Your task to perform on an android device: Search for sushi restaurants on Maps Image 0: 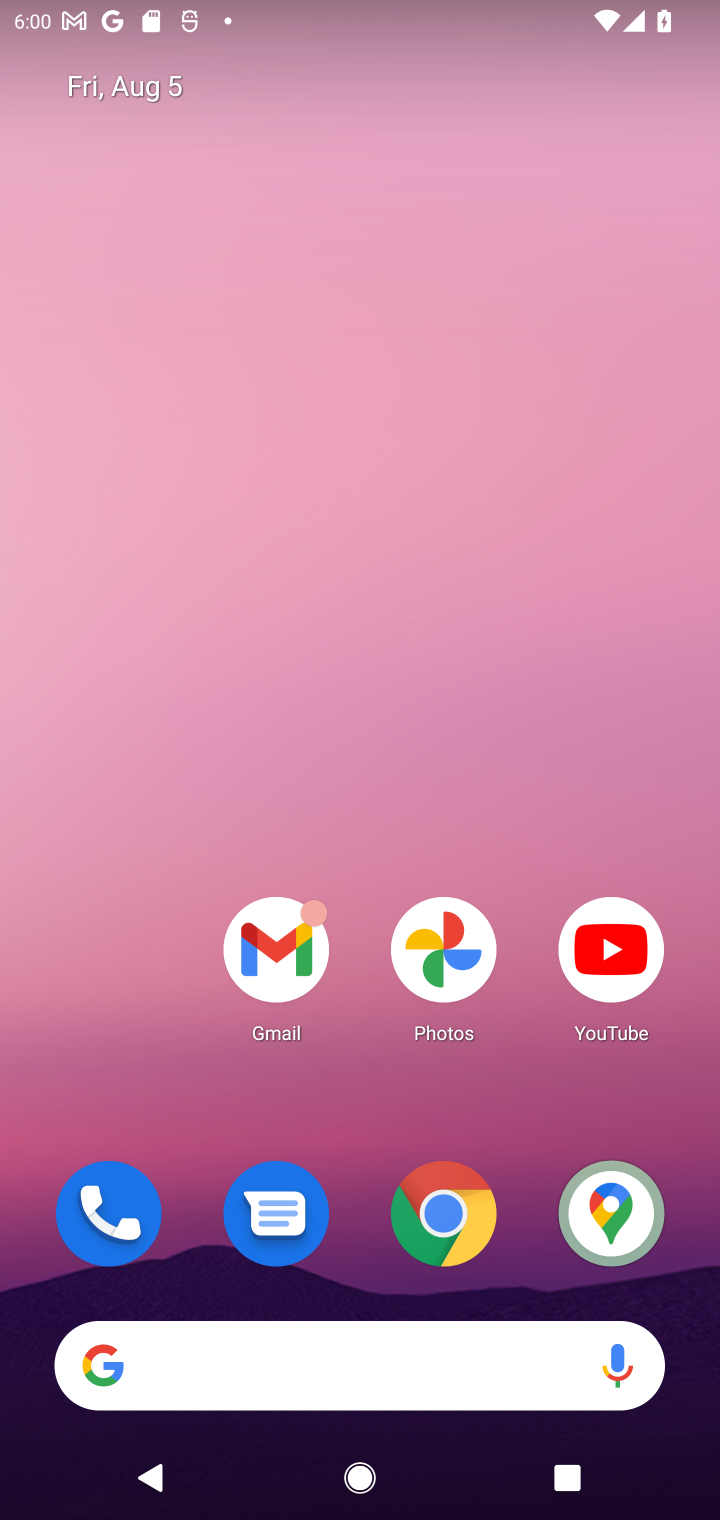
Step 0: click (614, 1213)
Your task to perform on an android device: Search for sushi restaurants on Maps Image 1: 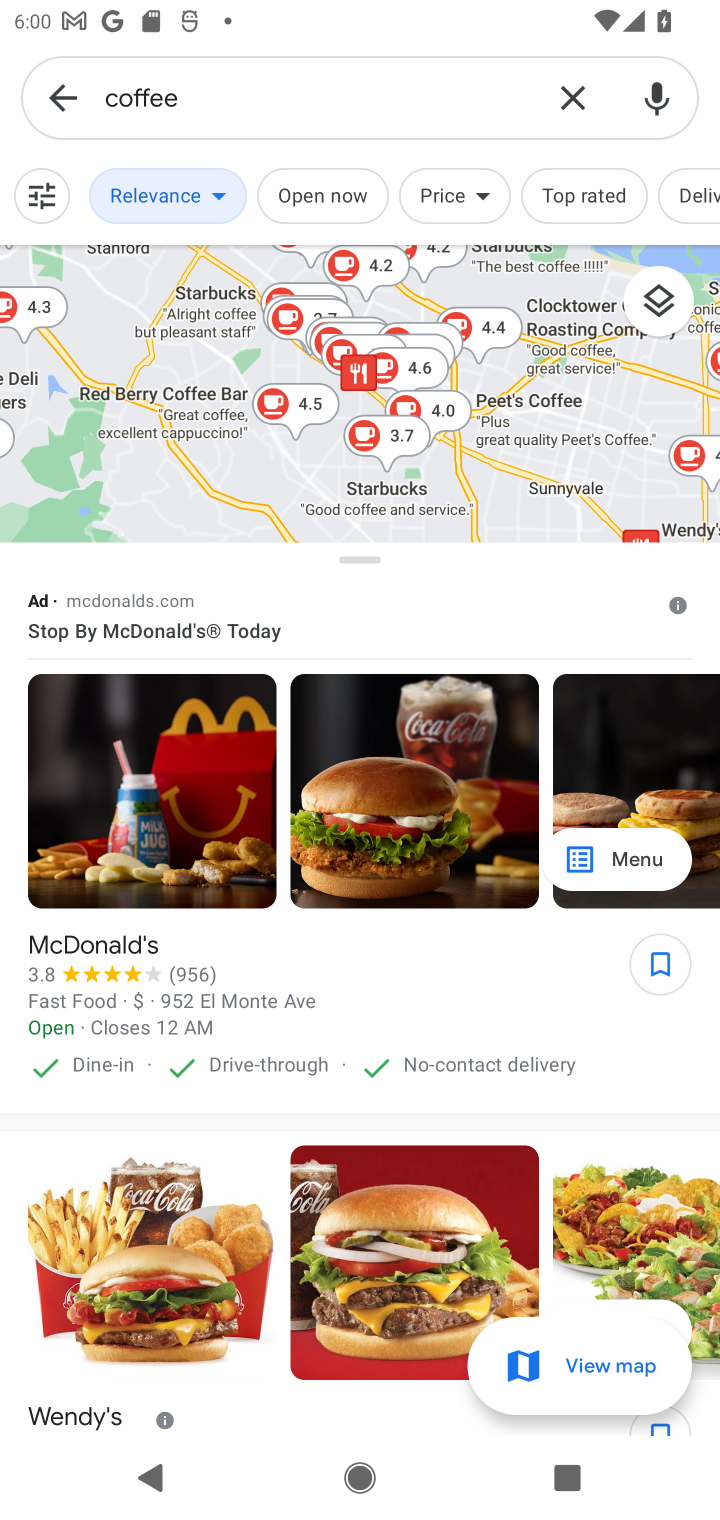
Step 1: click (549, 110)
Your task to perform on an android device: Search for sushi restaurants on Maps Image 2: 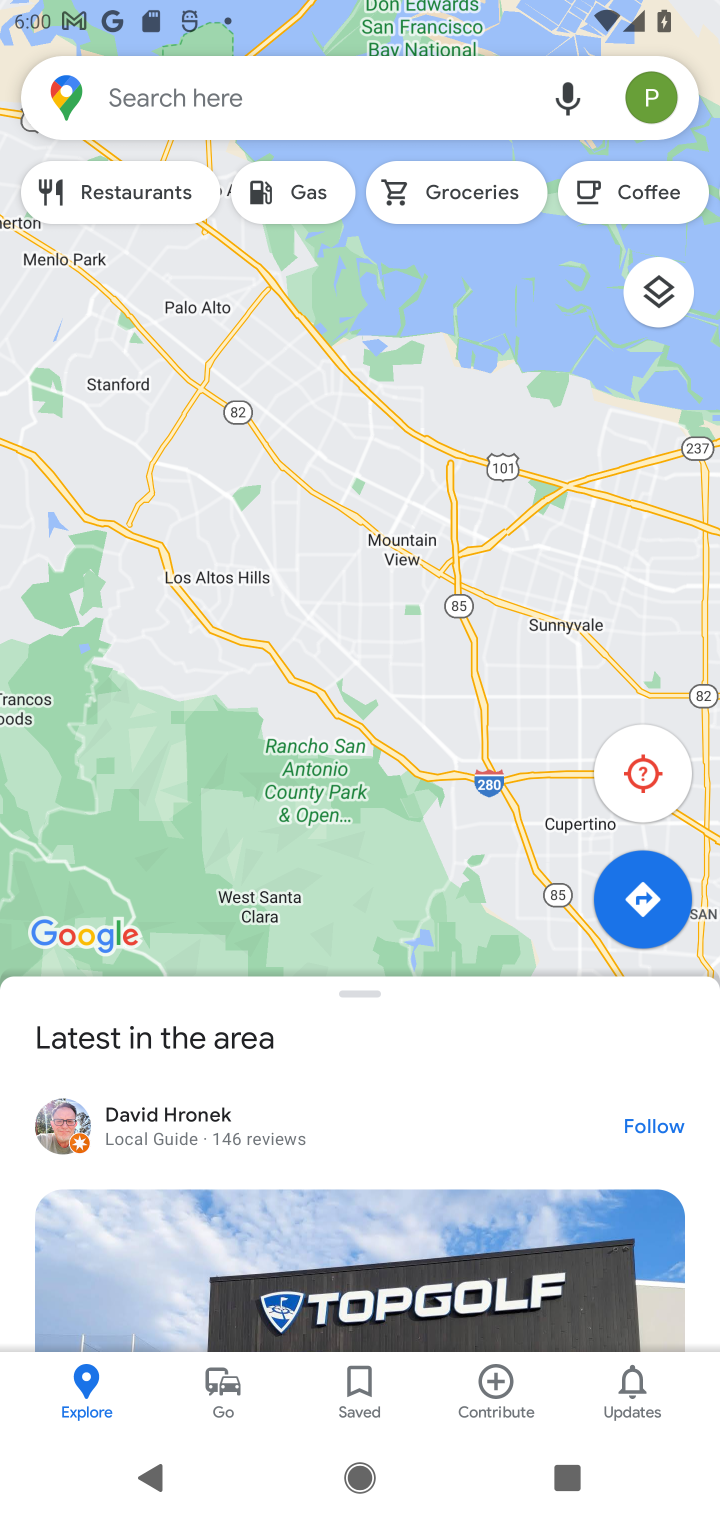
Step 2: click (451, 105)
Your task to perform on an android device: Search for sushi restaurants on Maps Image 3: 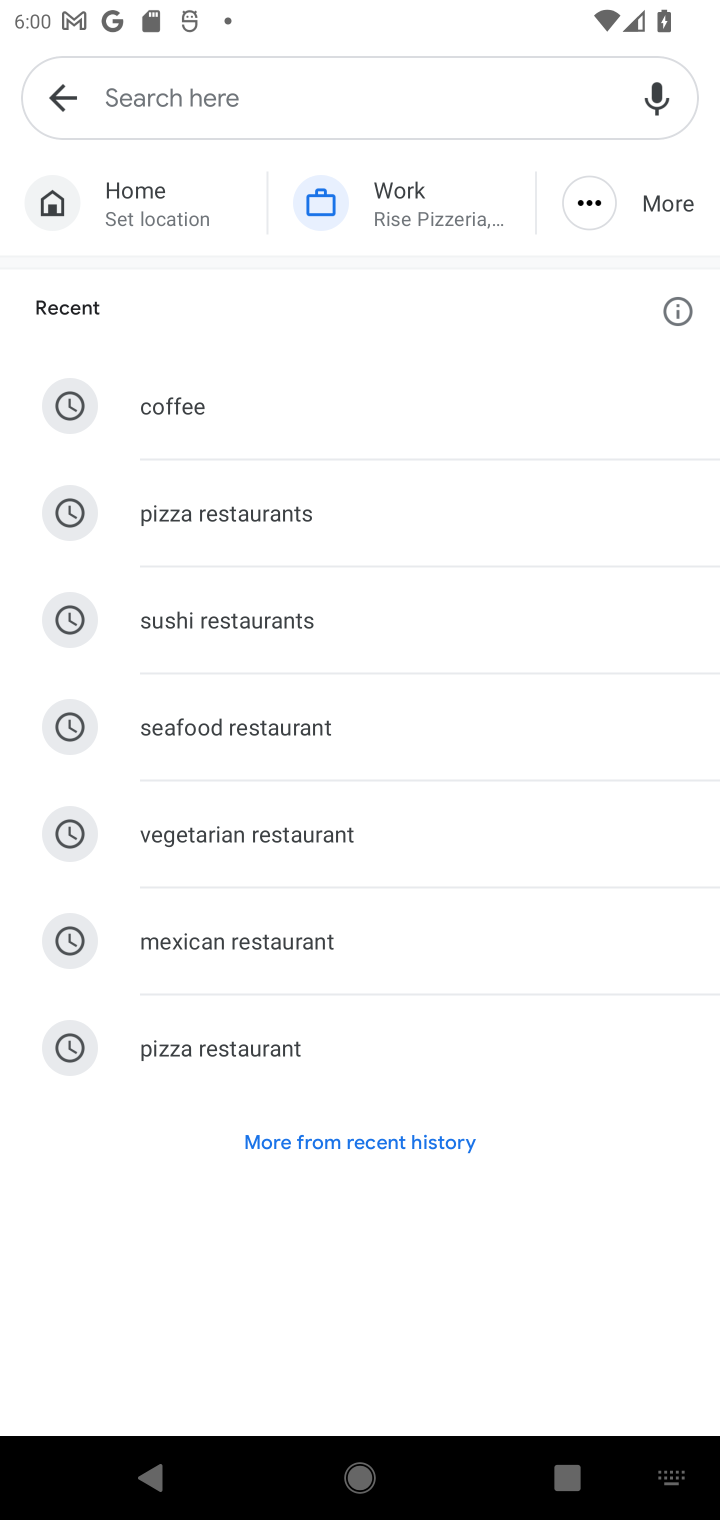
Step 3: click (324, 638)
Your task to perform on an android device: Search for sushi restaurants on Maps Image 4: 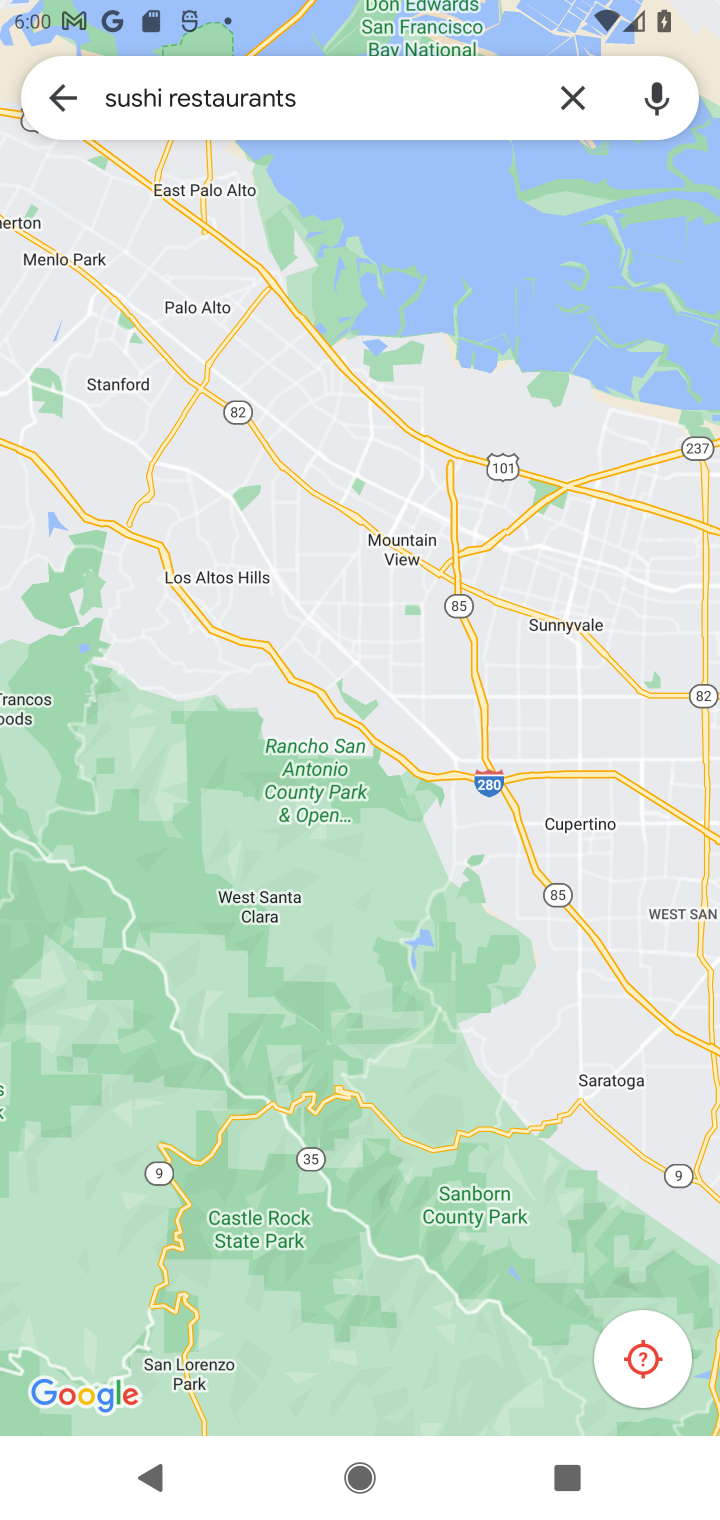
Step 4: task complete